Your task to perform on an android device: allow notifications from all sites in the chrome app Image 0: 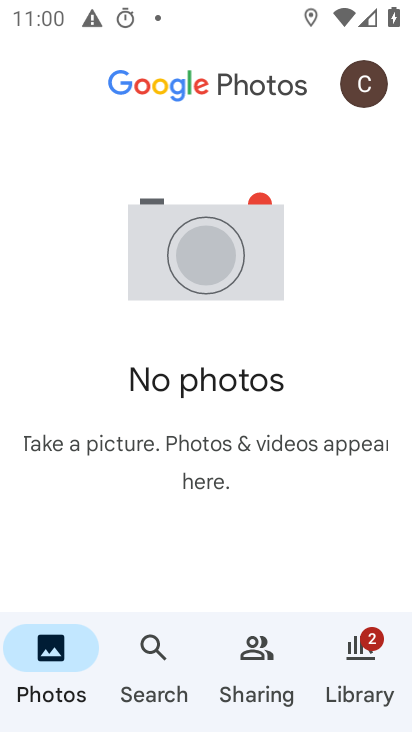
Step 0: press home button
Your task to perform on an android device: allow notifications from all sites in the chrome app Image 1: 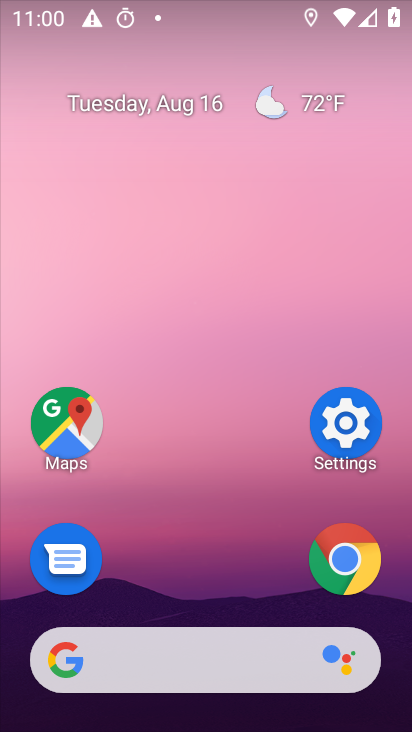
Step 1: click (336, 559)
Your task to perform on an android device: allow notifications from all sites in the chrome app Image 2: 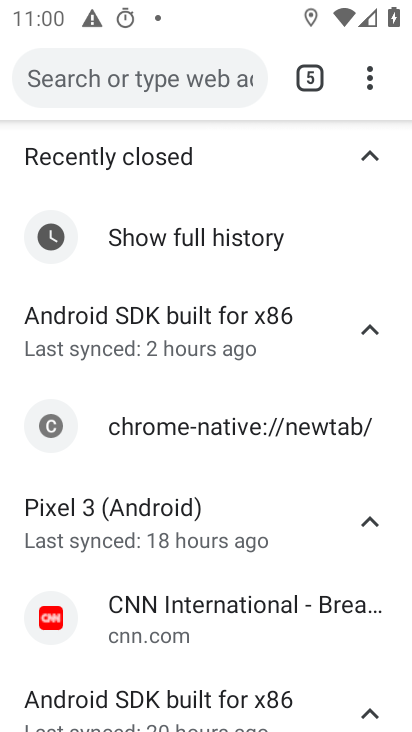
Step 2: drag from (371, 80) to (166, 607)
Your task to perform on an android device: allow notifications from all sites in the chrome app Image 3: 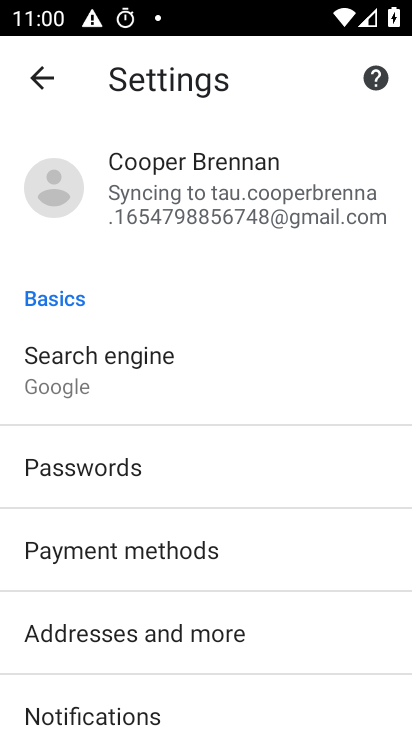
Step 3: drag from (193, 663) to (259, 414)
Your task to perform on an android device: allow notifications from all sites in the chrome app Image 4: 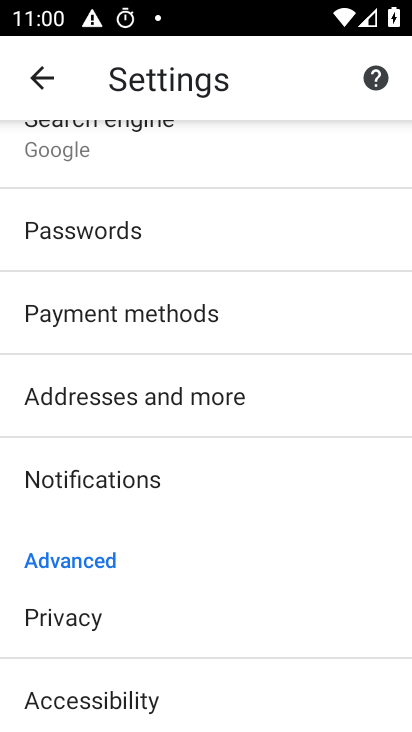
Step 4: drag from (225, 664) to (272, 302)
Your task to perform on an android device: allow notifications from all sites in the chrome app Image 5: 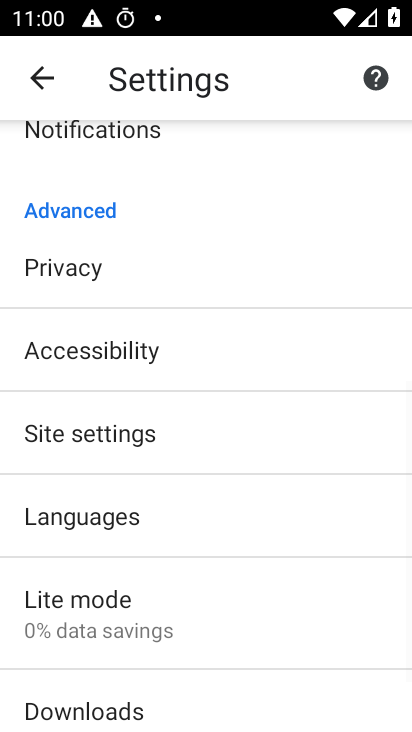
Step 5: click (103, 438)
Your task to perform on an android device: allow notifications from all sites in the chrome app Image 6: 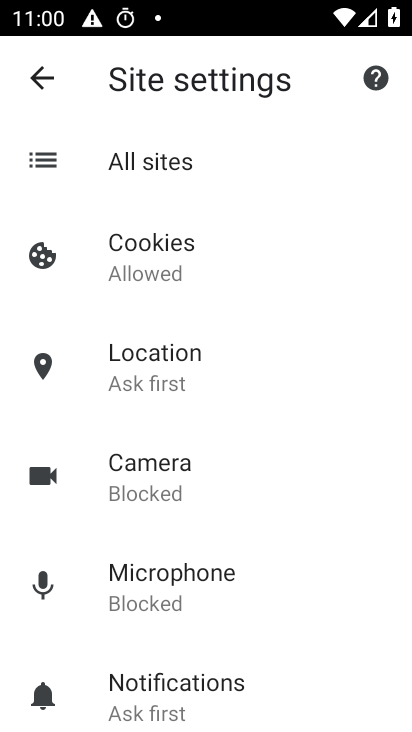
Step 6: drag from (234, 659) to (273, 310)
Your task to perform on an android device: allow notifications from all sites in the chrome app Image 7: 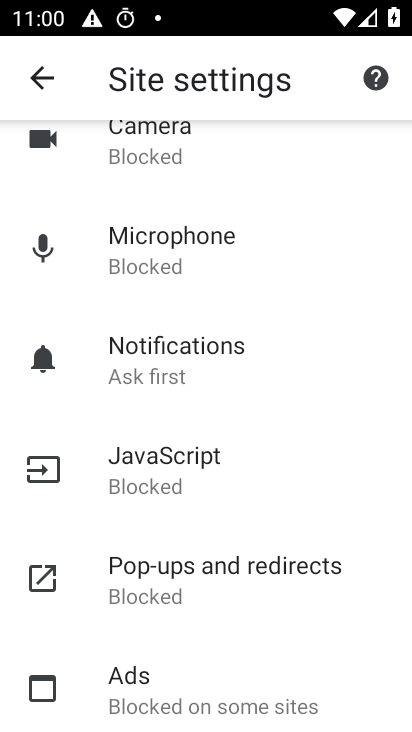
Step 7: click (188, 369)
Your task to perform on an android device: allow notifications from all sites in the chrome app Image 8: 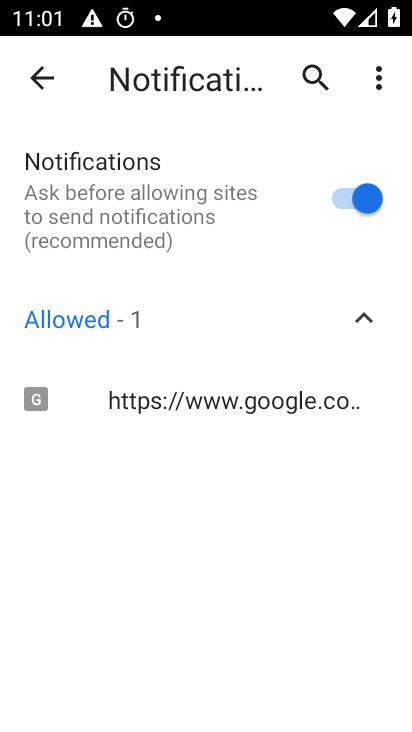
Step 8: task complete